Your task to perform on an android device: turn on improve location accuracy Image 0: 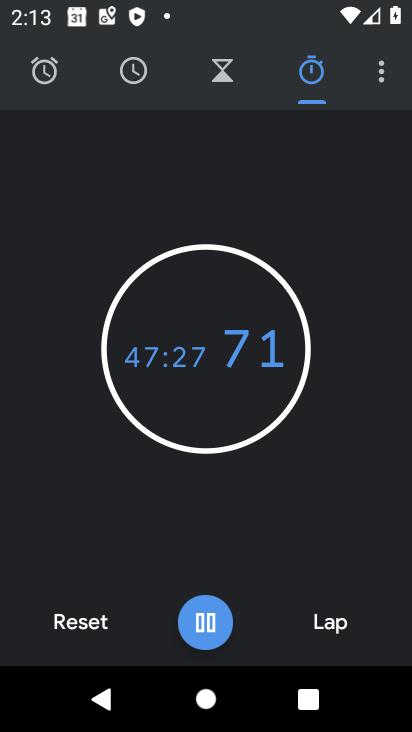
Step 0: press home button
Your task to perform on an android device: turn on improve location accuracy Image 1: 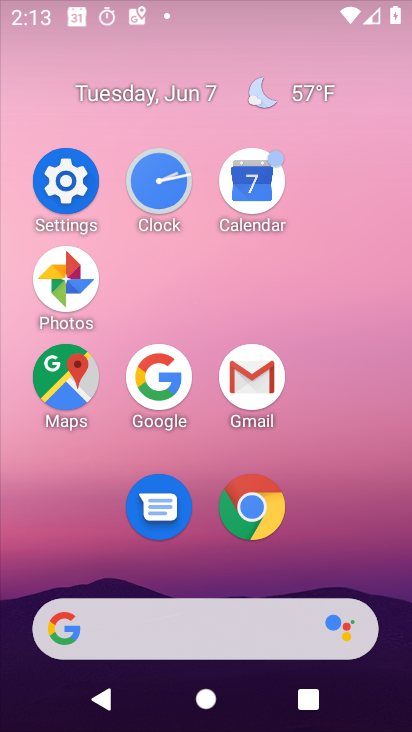
Step 1: click (50, 209)
Your task to perform on an android device: turn on improve location accuracy Image 2: 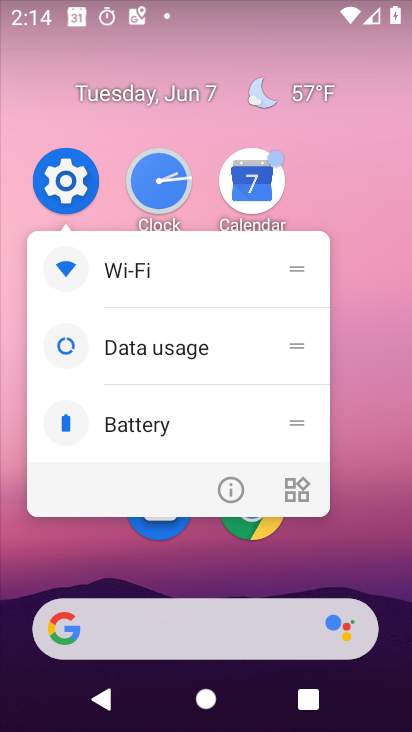
Step 2: click (59, 189)
Your task to perform on an android device: turn on improve location accuracy Image 3: 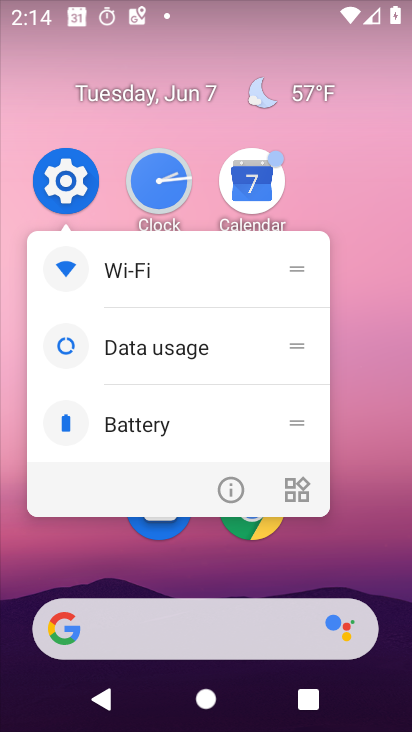
Step 3: click (69, 191)
Your task to perform on an android device: turn on improve location accuracy Image 4: 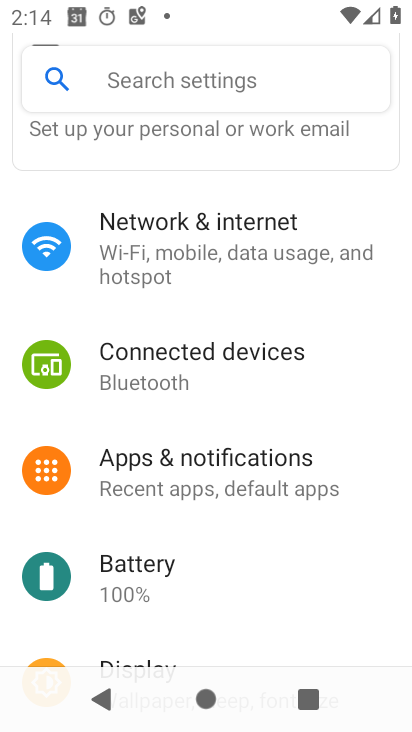
Step 4: drag from (279, 493) to (277, 127)
Your task to perform on an android device: turn on improve location accuracy Image 5: 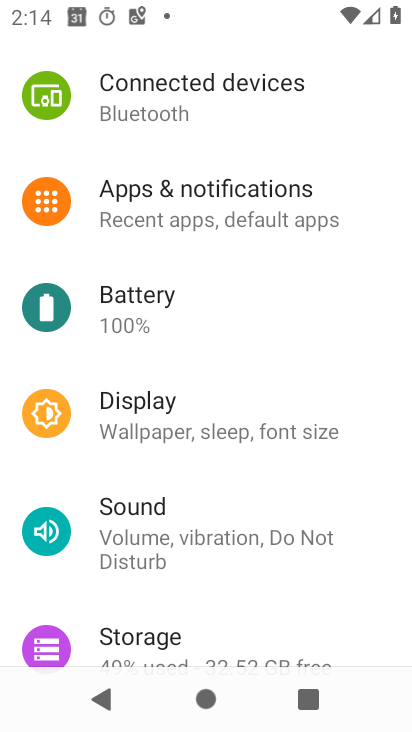
Step 5: drag from (270, 530) to (256, 182)
Your task to perform on an android device: turn on improve location accuracy Image 6: 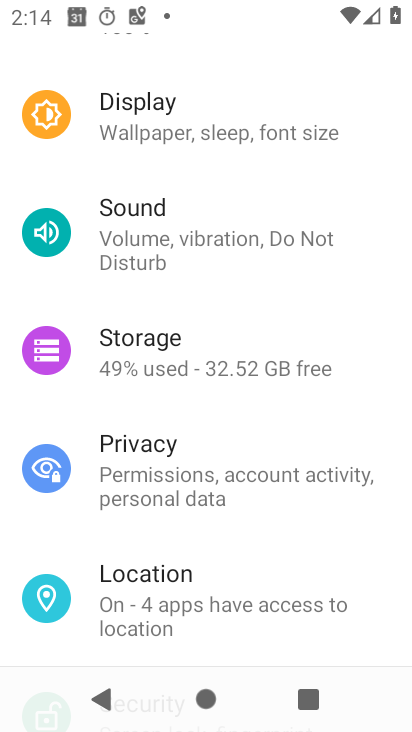
Step 6: drag from (245, 539) to (246, 158)
Your task to perform on an android device: turn on improve location accuracy Image 7: 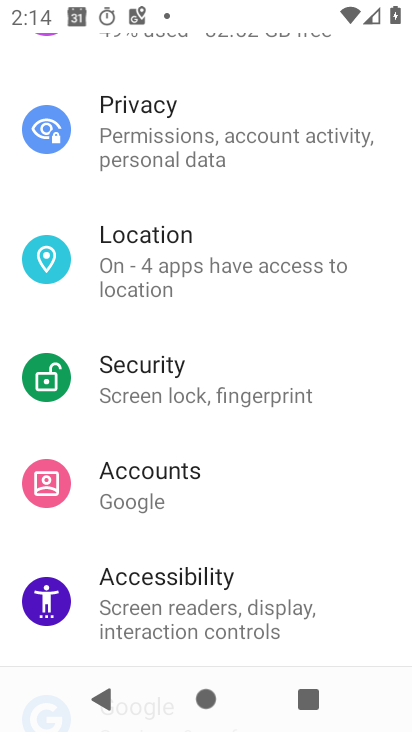
Step 7: click (205, 244)
Your task to perform on an android device: turn on improve location accuracy Image 8: 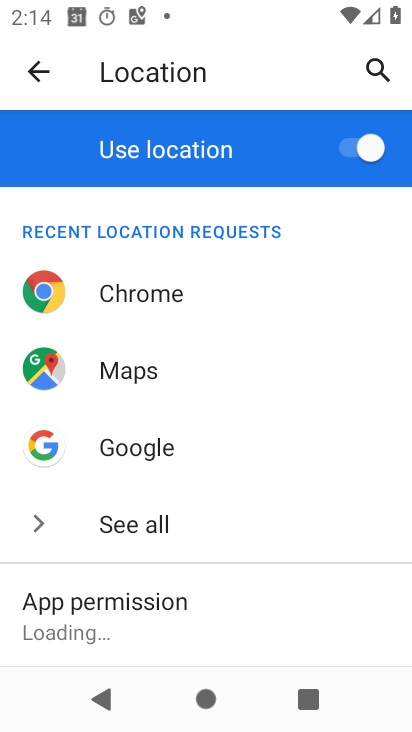
Step 8: drag from (224, 482) to (270, 101)
Your task to perform on an android device: turn on improve location accuracy Image 9: 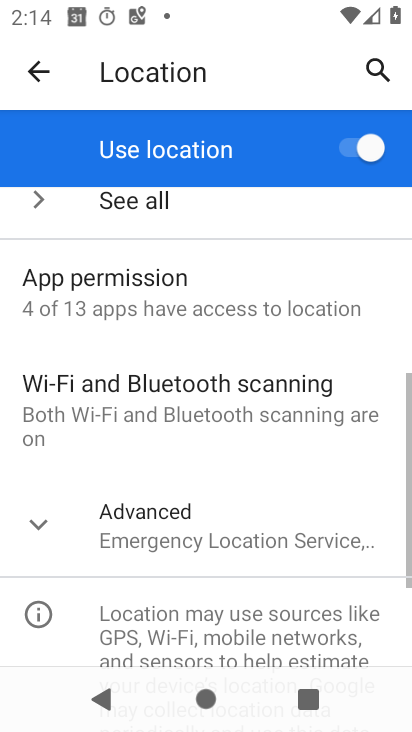
Step 9: click (252, 532)
Your task to perform on an android device: turn on improve location accuracy Image 10: 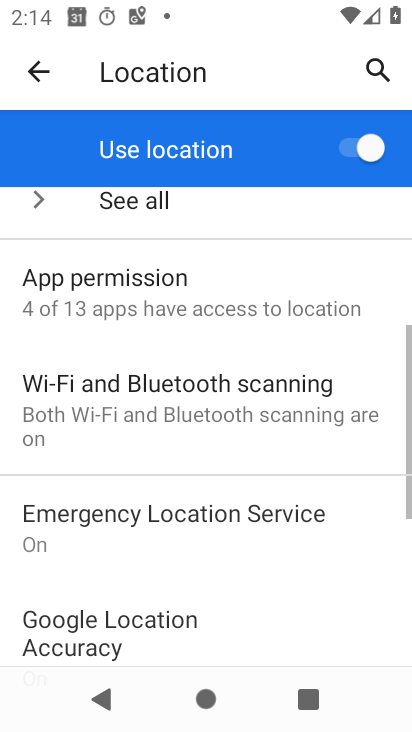
Step 10: drag from (265, 450) to (257, 267)
Your task to perform on an android device: turn on improve location accuracy Image 11: 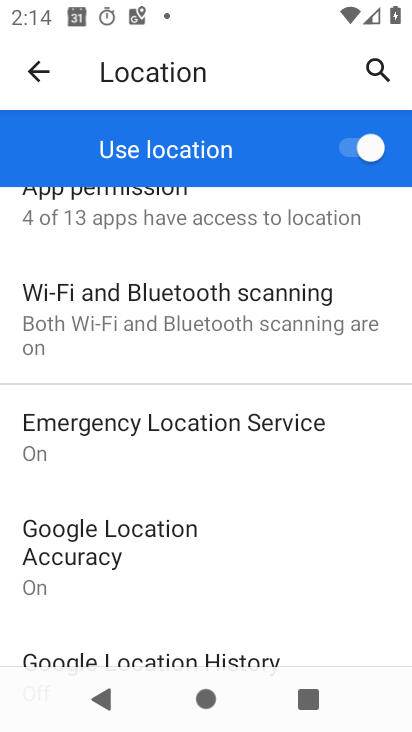
Step 11: click (172, 520)
Your task to perform on an android device: turn on improve location accuracy Image 12: 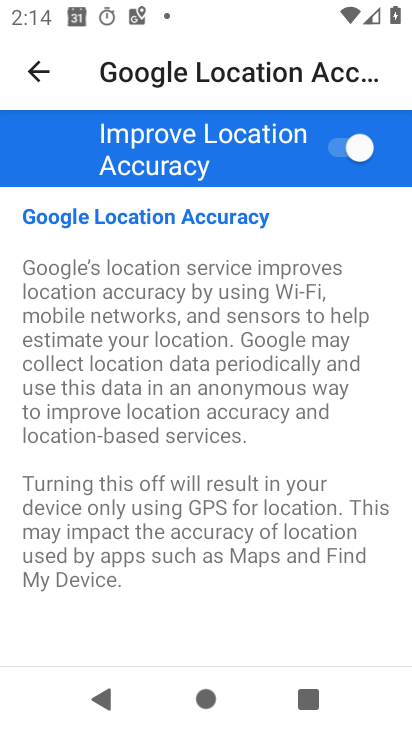
Step 12: task complete